Your task to perform on an android device: Check the news Image 0: 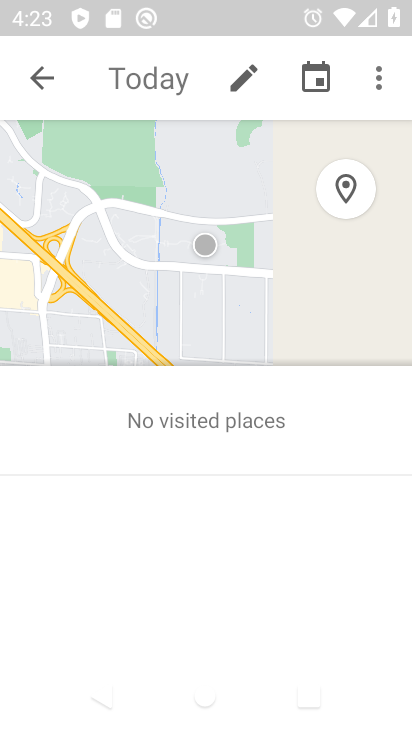
Step 0: press home button
Your task to perform on an android device: Check the news Image 1: 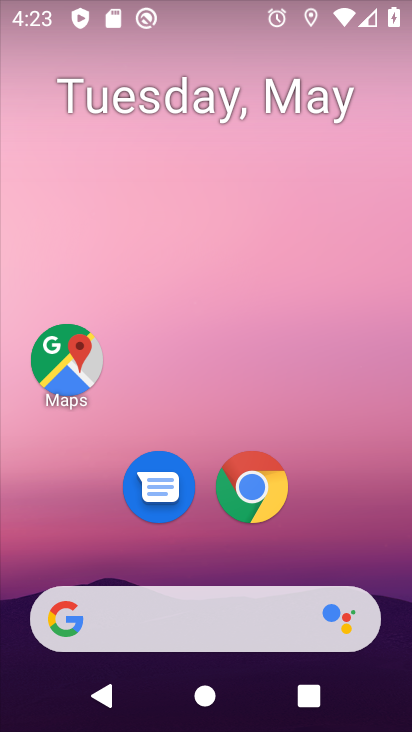
Step 1: click (255, 485)
Your task to perform on an android device: Check the news Image 2: 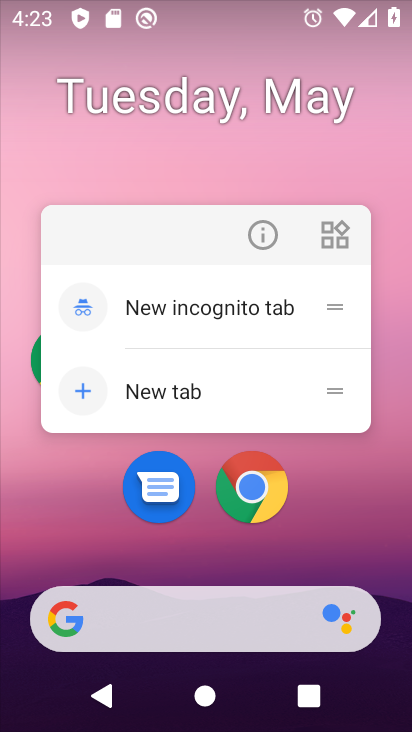
Step 2: click (277, 494)
Your task to perform on an android device: Check the news Image 3: 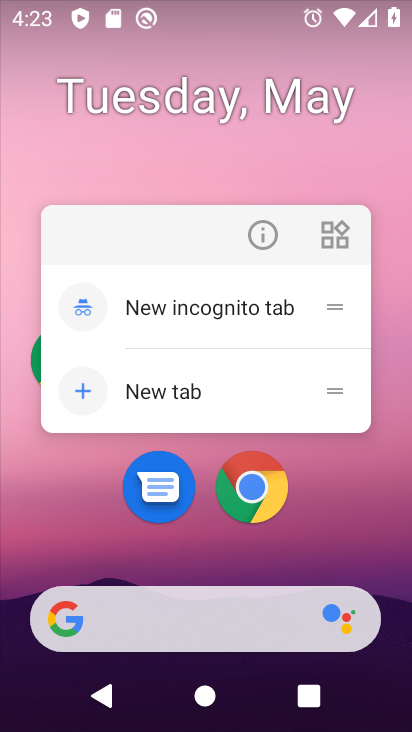
Step 3: click (251, 492)
Your task to perform on an android device: Check the news Image 4: 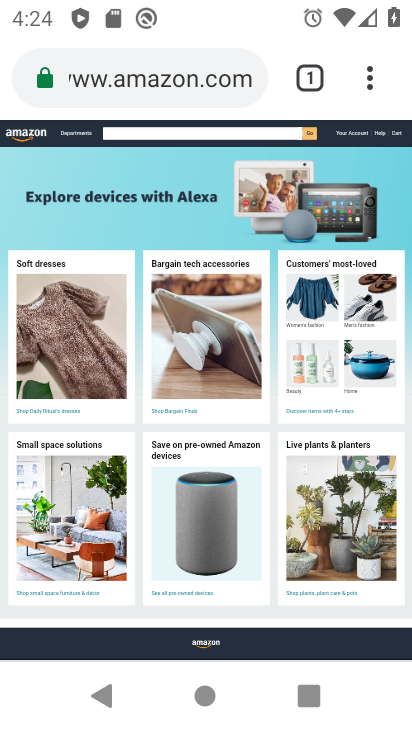
Step 4: click (174, 76)
Your task to perform on an android device: Check the news Image 5: 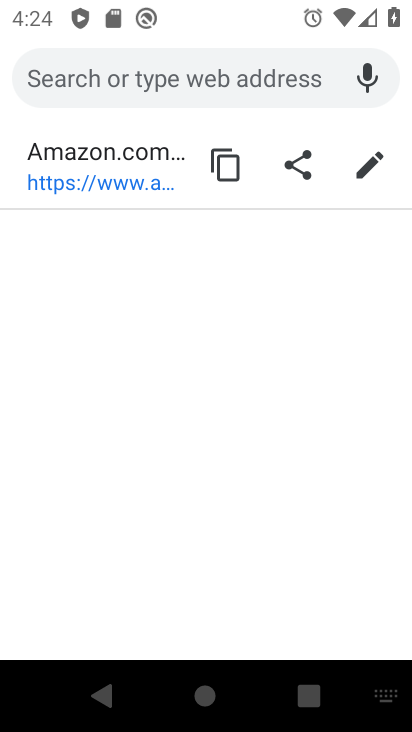
Step 5: type "news"
Your task to perform on an android device: Check the news Image 6: 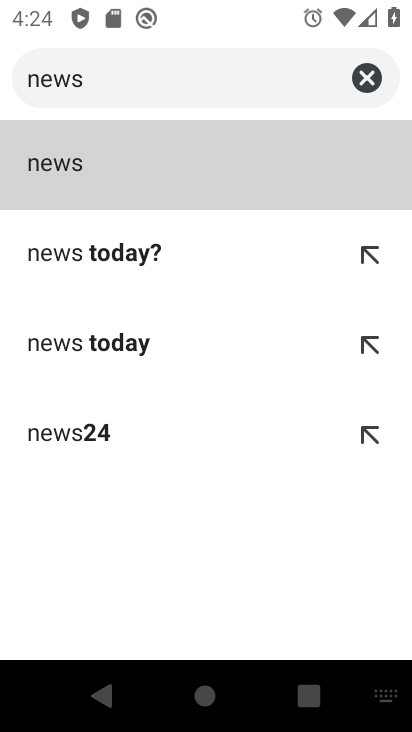
Step 6: click (81, 163)
Your task to perform on an android device: Check the news Image 7: 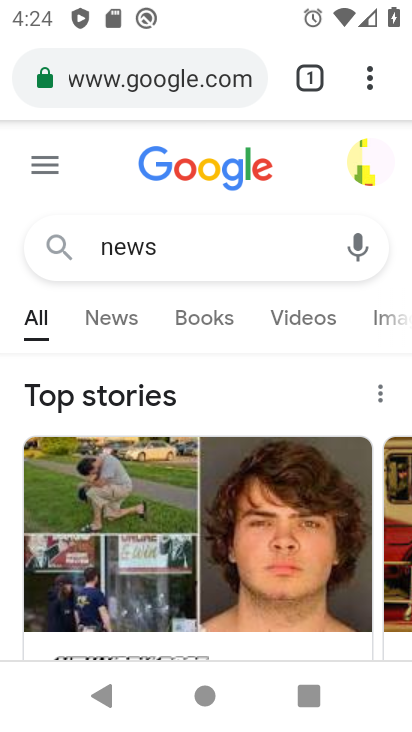
Step 7: click (117, 316)
Your task to perform on an android device: Check the news Image 8: 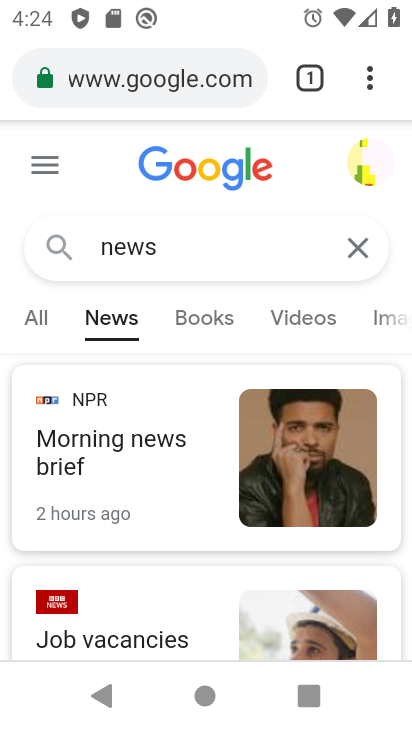
Step 8: task complete